Your task to perform on an android device: Open the map Image 0: 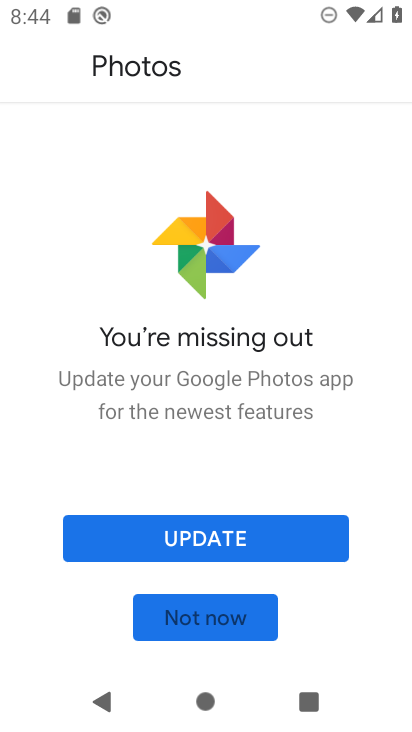
Step 0: press home button
Your task to perform on an android device: Open the map Image 1: 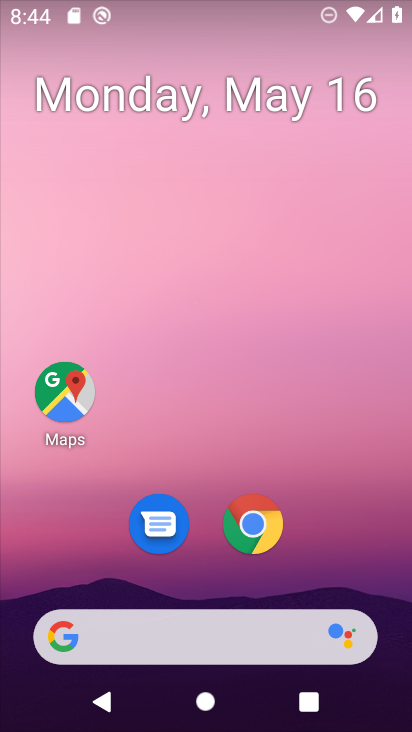
Step 1: click (64, 392)
Your task to perform on an android device: Open the map Image 2: 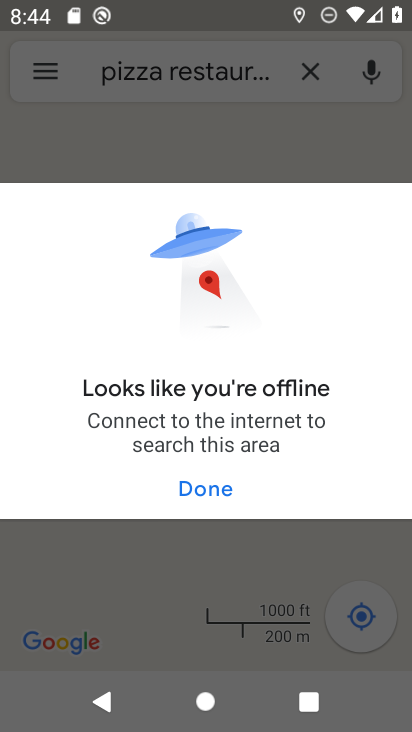
Step 2: click (217, 491)
Your task to perform on an android device: Open the map Image 3: 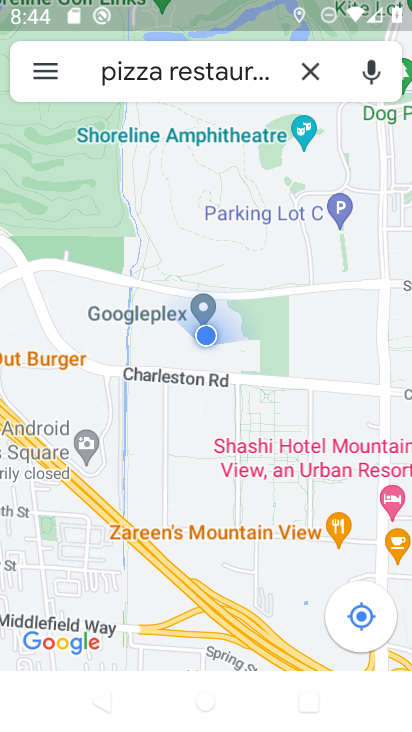
Step 3: click (304, 70)
Your task to perform on an android device: Open the map Image 4: 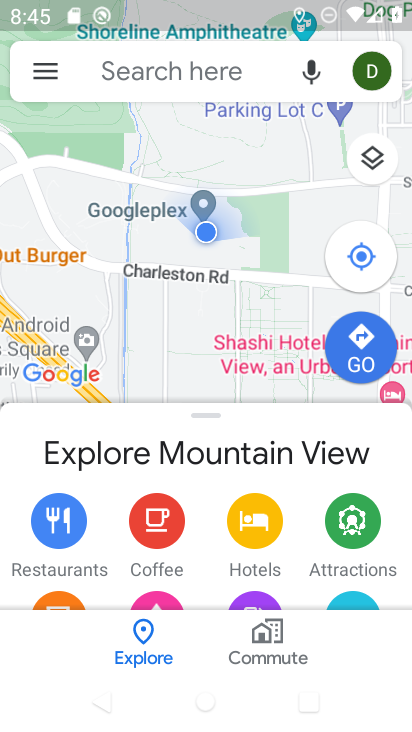
Step 4: task complete